Your task to perform on an android device: Turn on the flashlight Image 0: 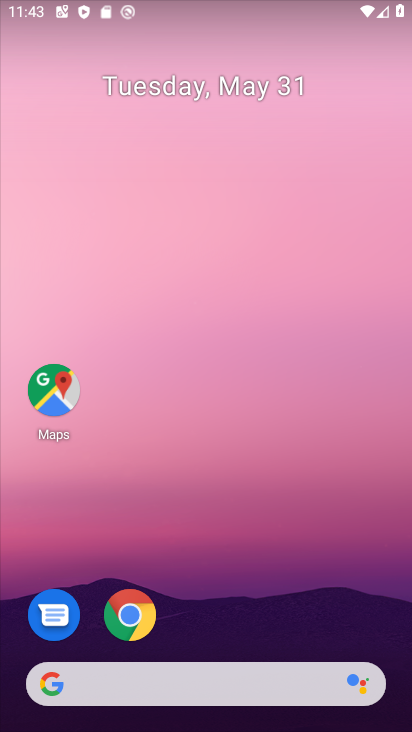
Step 0: task complete